Your task to perform on an android device: manage bookmarks in the chrome app Image 0: 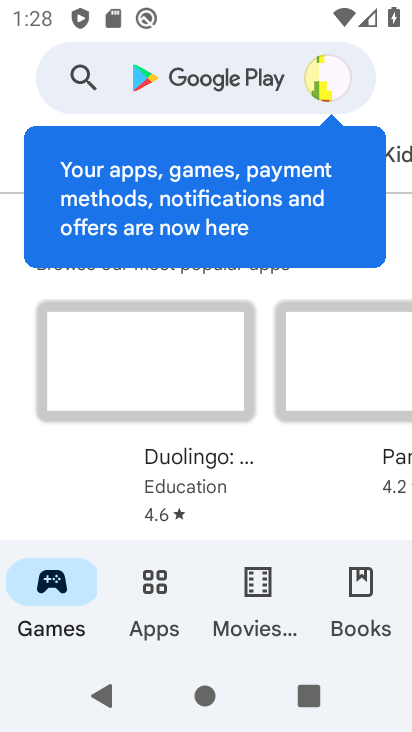
Step 0: press home button
Your task to perform on an android device: manage bookmarks in the chrome app Image 1: 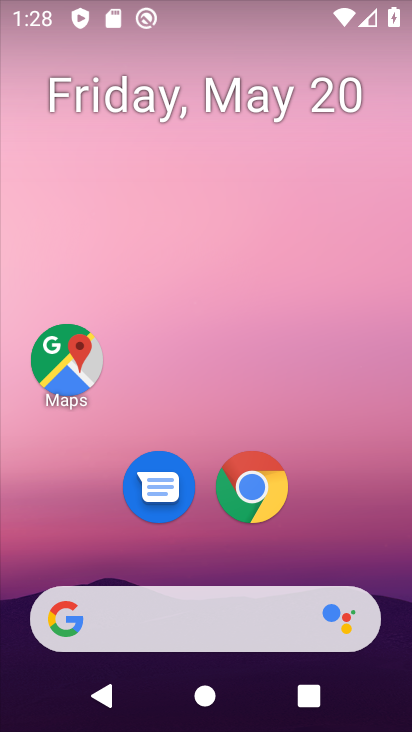
Step 1: drag from (332, 489) to (255, 18)
Your task to perform on an android device: manage bookmarks in the chrome app Image 2: 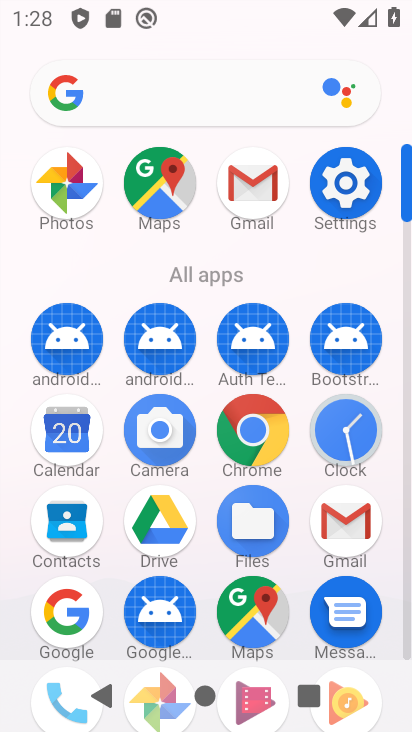
Step 2: click (259, 418)
Your task to perform on an android device: manage bookmarks in the chrome app Image 3: 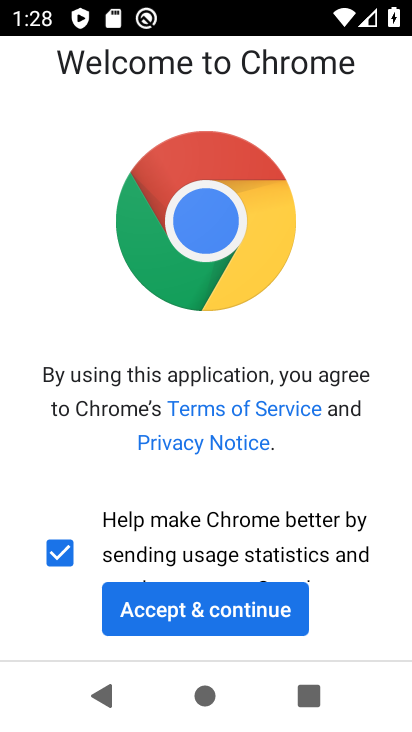
Step 3: click (190, 616)
Your task to perform on an android device: manage bookmarks in the chrome app Image 4: 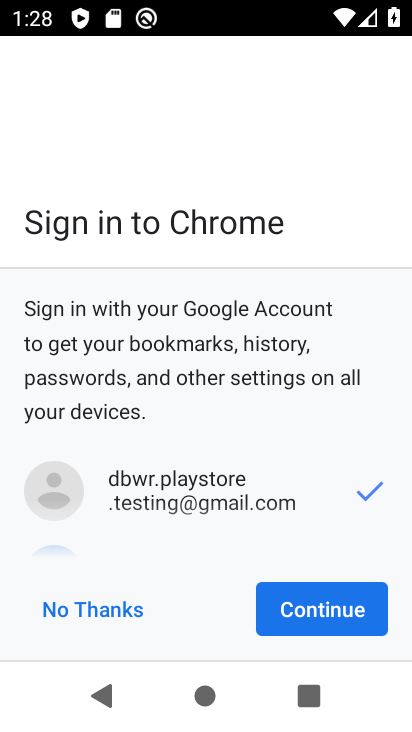
Step 4: click (134, 615)
Your task to perform on an android device: manage bookmarks in the chrome app Image 5: 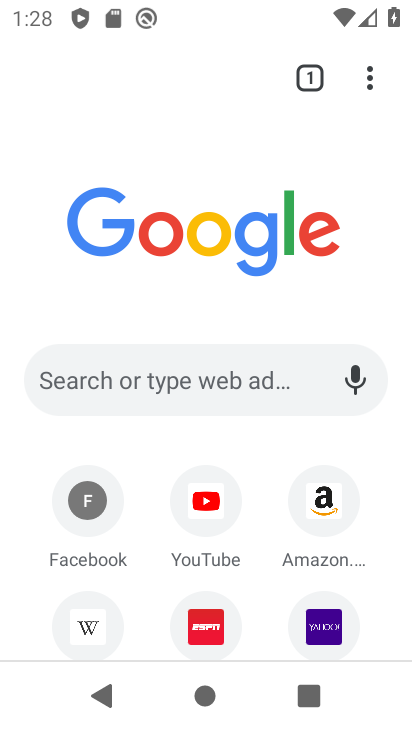
Step 5: drag from (365, 86) to (46, 316)
Your task to perform on an android device: manage bookmarks in the chrome app Image 6: 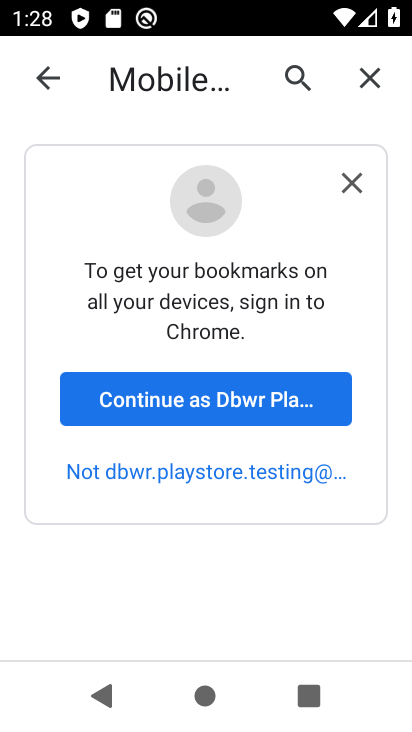
Step 6: click (102, 412)
Your task to perform on an android device: manage bookmarks in the chrome app Image 7: 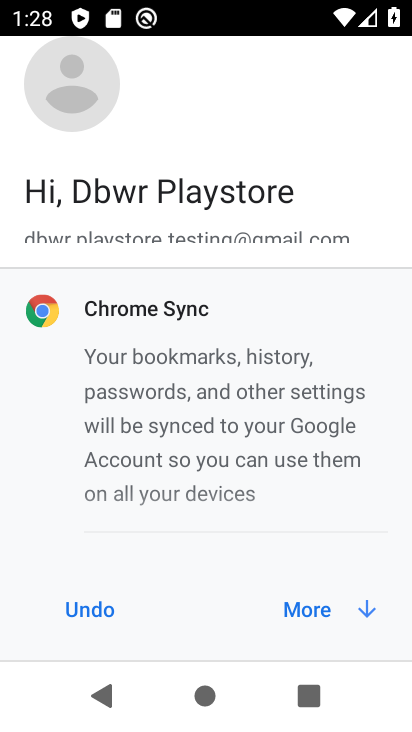
Step 7: click (291, 599)
Your task to perform on an android device: manage bookmarks in the chrome app Image 8: 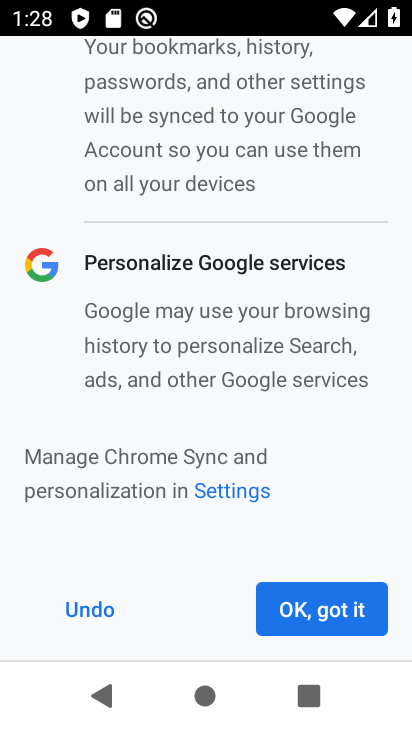
Step 8: click (291, 599)
Your task to perform on an android device: manage bookmarks in the chrome app Image 9: 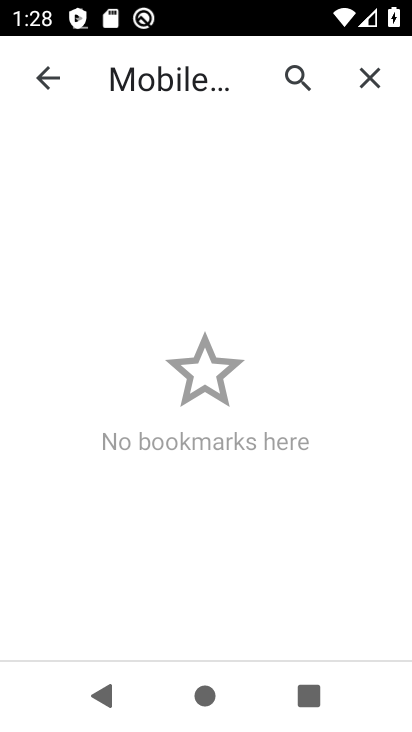
Step 9: task complete